Your task to perform on an android device: turn off javascript in the chrome app Image 0: 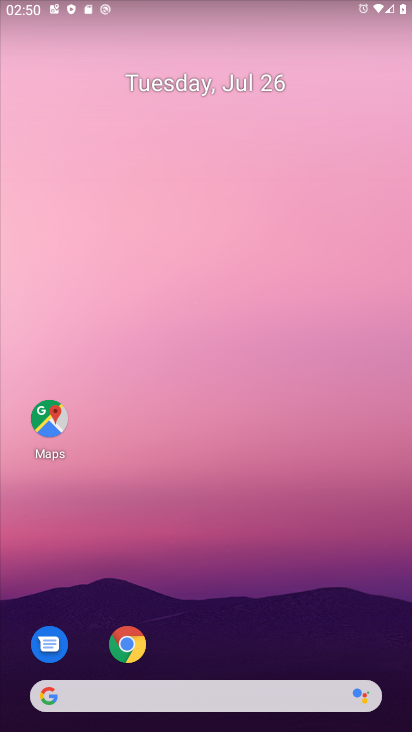
Step 0: drag from (132, 646) to (166, 151)
Your task to perform on an android device: turn off javascript in the chrome app Image 1: 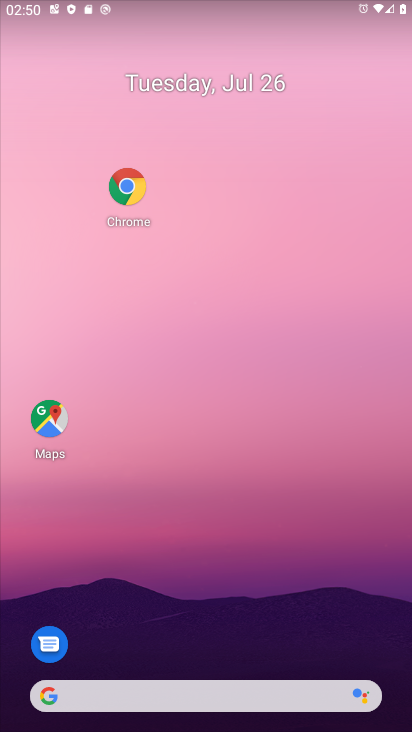
Step 1: click (133, 196)
Your task to perform on an android device: turn off javascript in the chrome app Image 2: 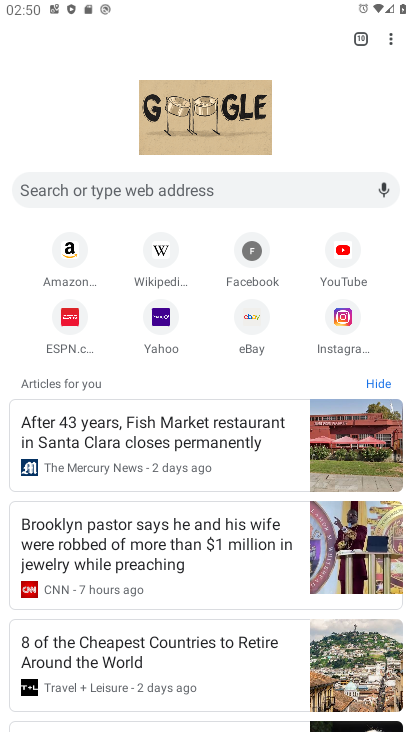
Step 2: click (392, 39)
Your task to perform on an android device: turn off javascript in the chrome app Image 3: 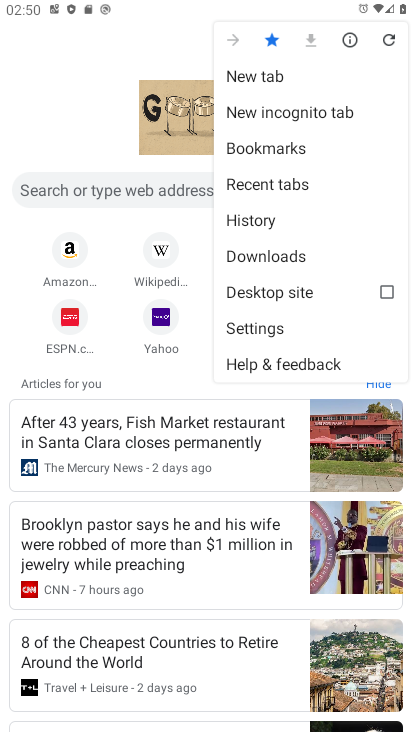
Step 3: click (276, 320)
Your task to perform on an android device: turn off javascript in the chrome app Image 4: 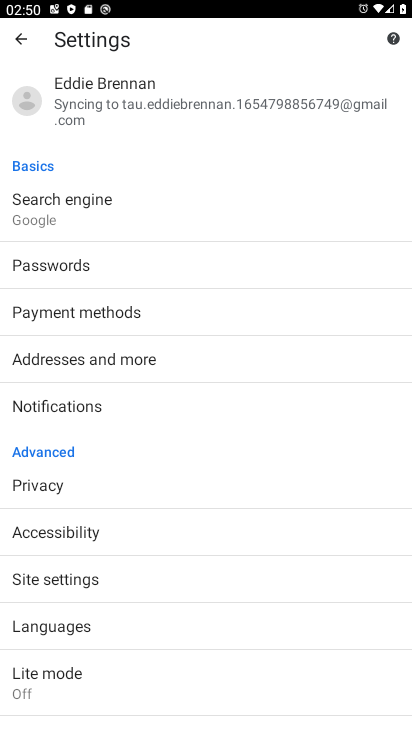
Step 4: click (78, 582)
Your task to perform on an android device: turn off javascript in the chrome app Image 5: 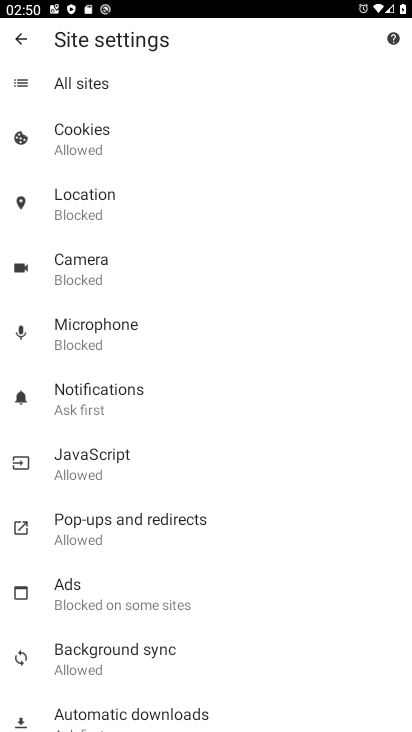
Step 5: click (105, 456)
Your task to perform on an android device: turn off javascript in the chrome app Image 6: 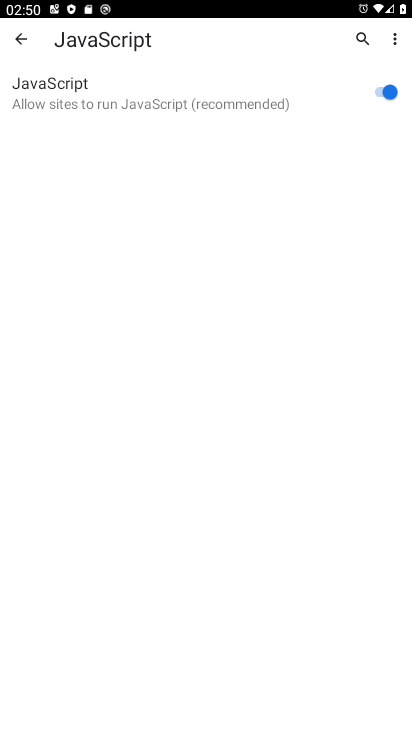
Step 6: click (383, 82)
Your task to perform on an android device: turn off javascript in the chrome app Image 7: 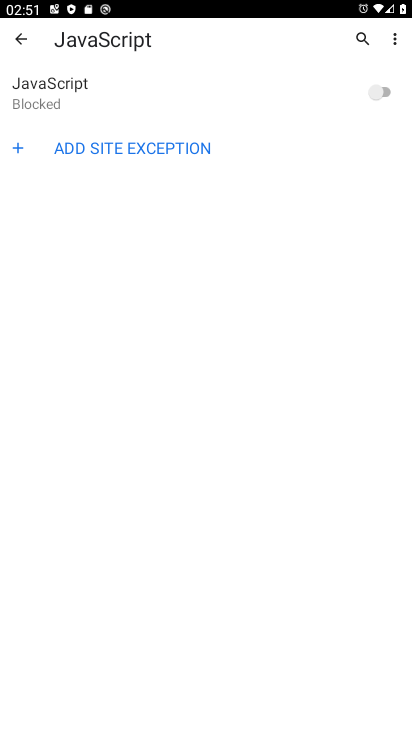
Step 7: task complete